Your task to perform on an android device: change the clock display to analog Image 0: 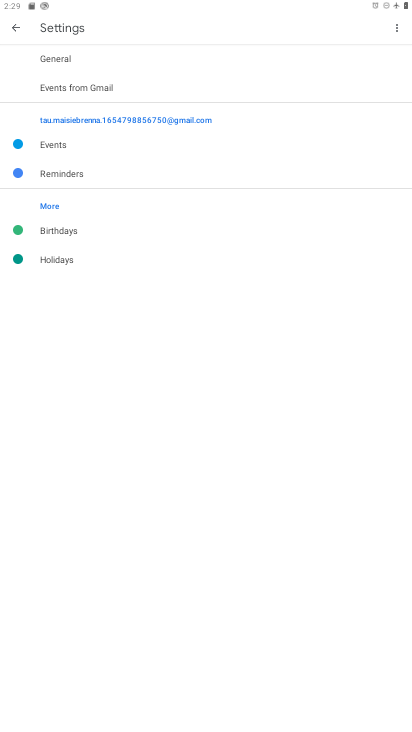
Step 0: press home button
Your task to perform on an android device: change the clock display to analog Image 1: 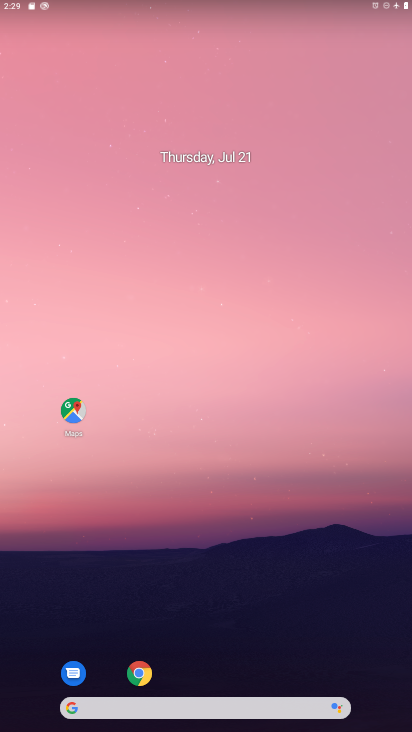
Step 1: drag from (246, 635) to (252, 542)
Your task to perform on an android device: change the clock display to analog Image 2: 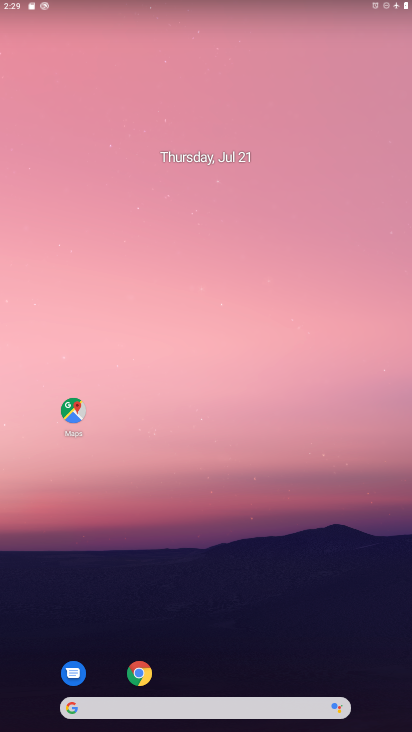
Step 2: drag from (193, 676) to (208, 303)
Your task to perform on an android device: change the clock display to analog Image 3: 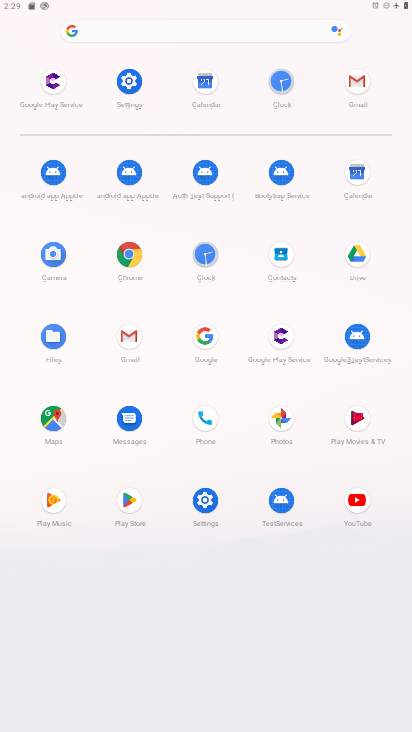
Step 3: click (283, 66)
Your task to perform on an android device: change the clock display to analog Image 4: 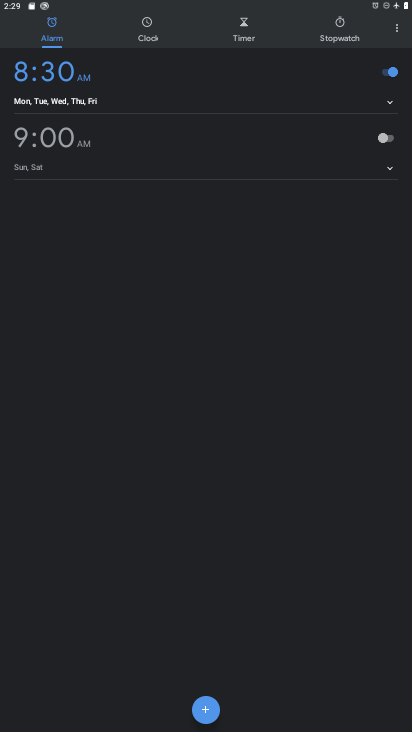
Step 4: click (324, 13)
Your task to perform on an android device: change the clock display to analog Image 5: 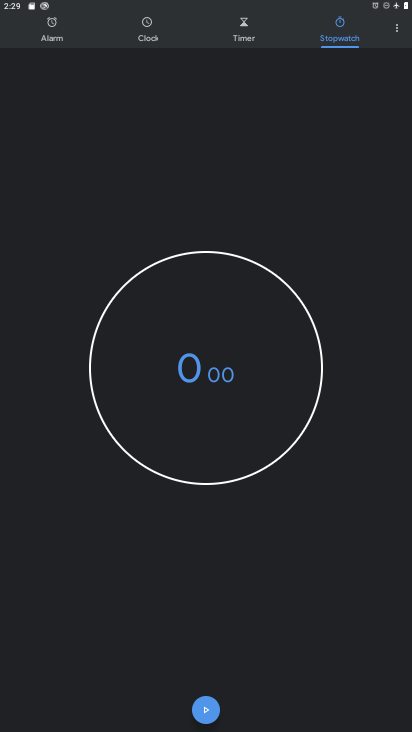
Step 5: click (393, 19)
Your task to perform on an android device: change the clock display to analog Image 6: 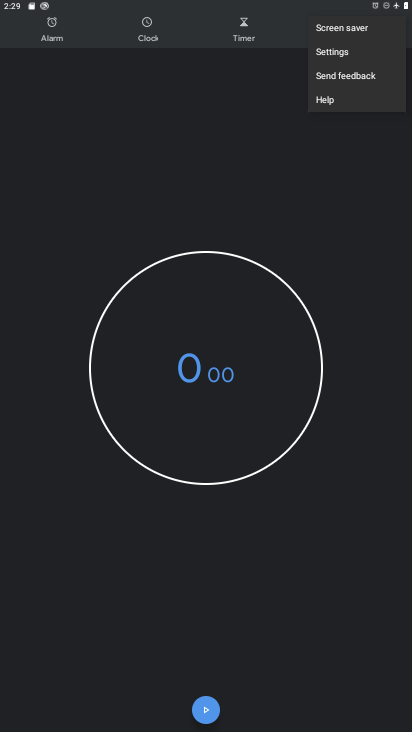
Step 6: click (330, 47)
Your task to perform on an android device: change the clock display to analog Image 7: 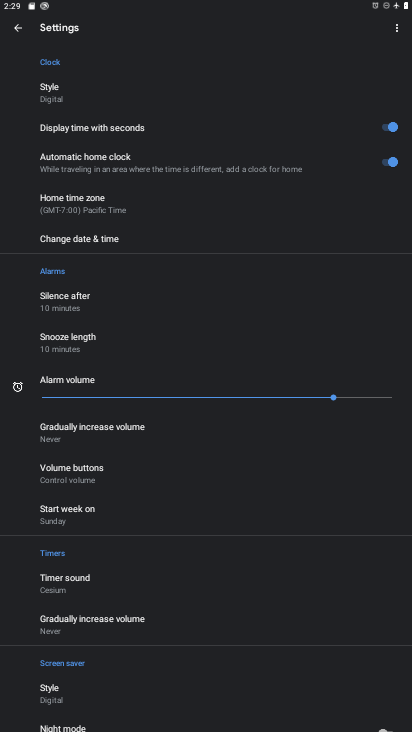
Step 7: click (88, 99)
Your task to perform on an android device: change the clock display to analog Image 8: 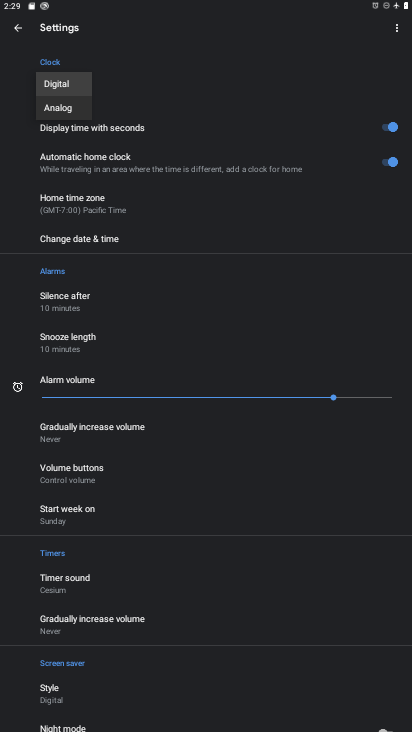
Step 8: click (64, 102)
Your task to perform on an android device: change the clock display to analog Image 9: 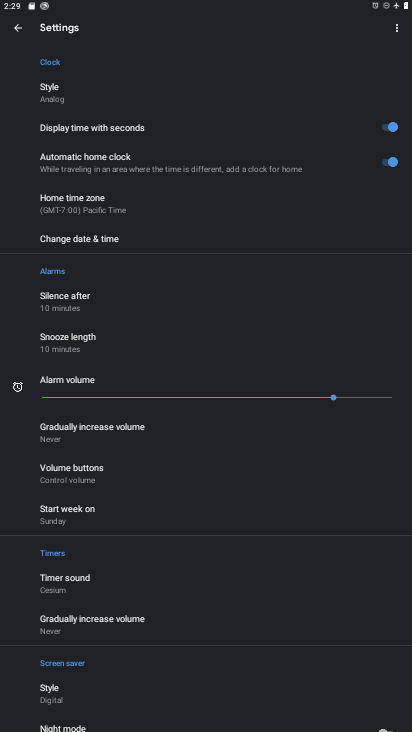
Step 9: task complete